Your task to perform on an android device: Open privacy settings Image 0: 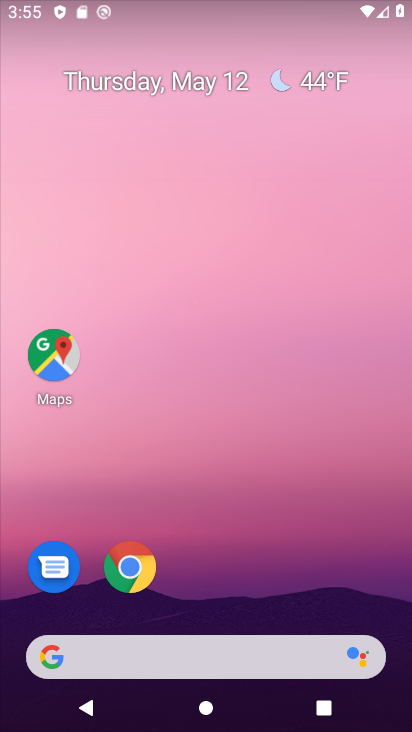
Step 0: click (138, 567)
Your task to perform on an android device: Open privacy settings Image 1: 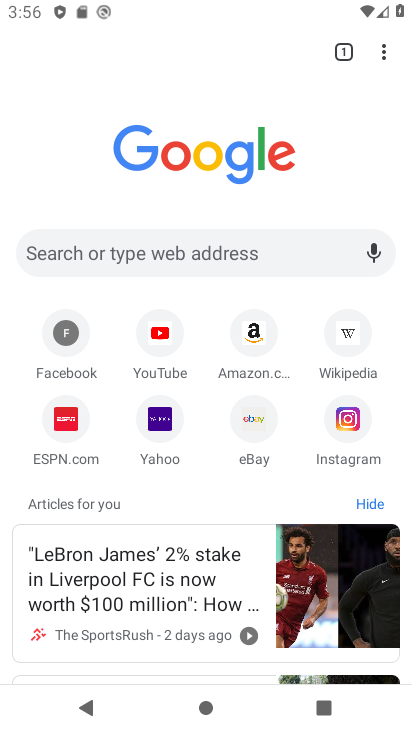
Step 1: click (401, 60)
Your task to perform on an android device: Open privacy settings Image 2: 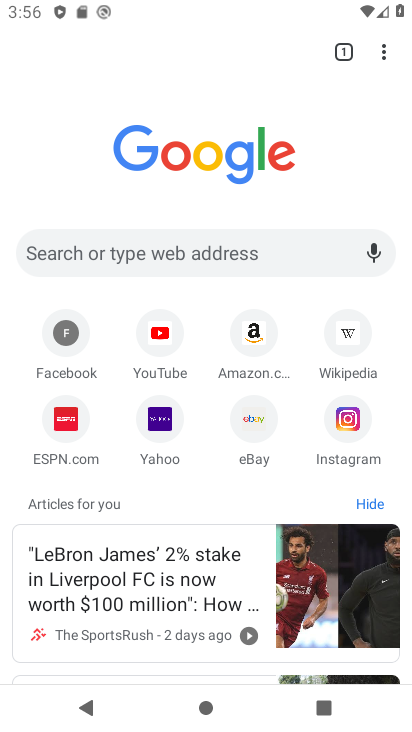
Step 2: drag from (401, 60) to (274, 425)
Your task to perform on an android device: Open privacy settings Image 3: 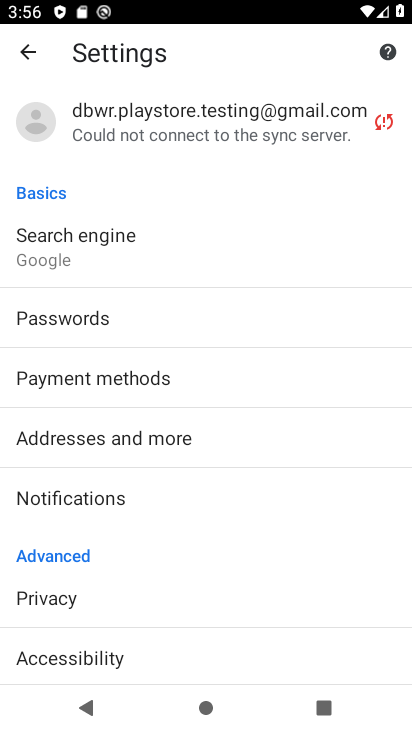
Step 3: click (149, 611)
Your task to perform on an android device: Open privacy settings Image 4: 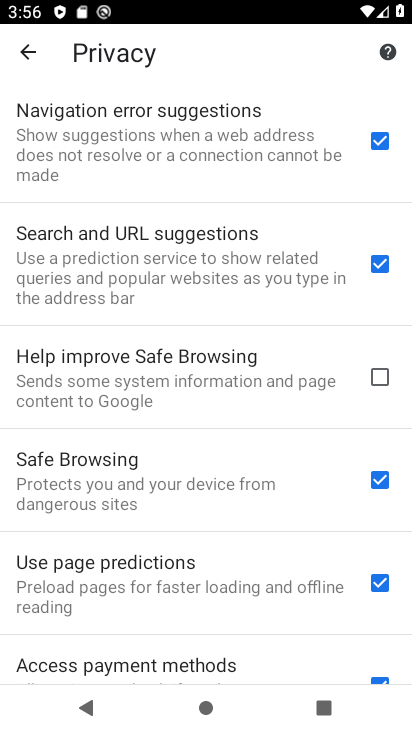
Step 4: task complete